Your task to perform on an android device: Open calendar and show me the second week of next month Image 0: 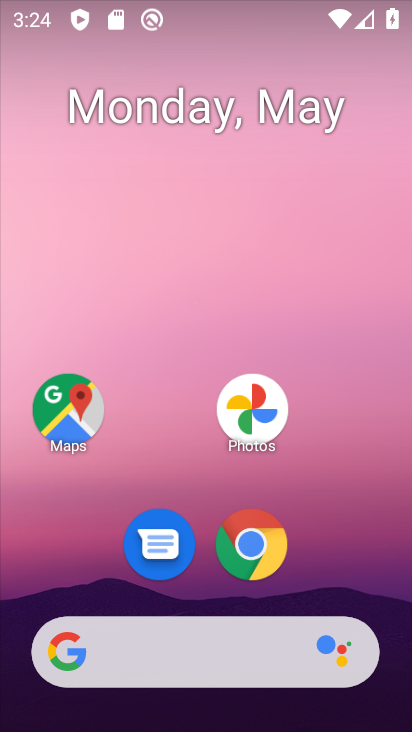
Step 0: drag from (236, 553) to (242, 101)
Your task to perform on an android device: Open calendar and show me the second week of next month Image 1: 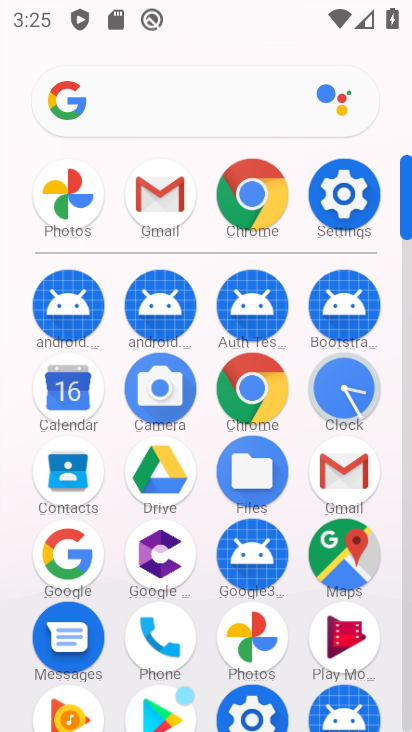
Step 1: click (67, 408)
Your task to perform on an android device: Open calendar and show me the second week of next month Image 2: 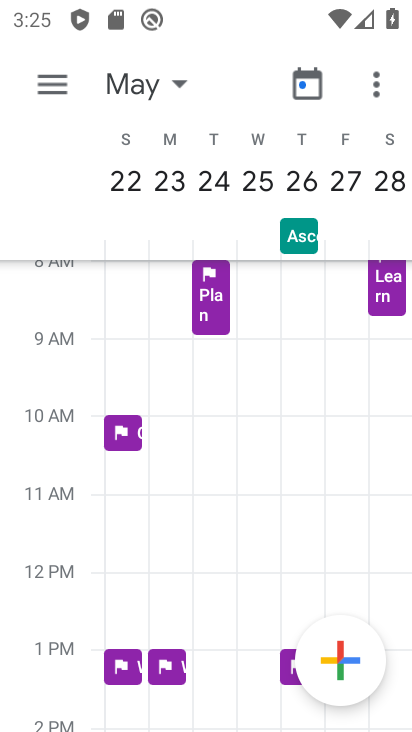
Step 2: click (170, 80)
Your task to perform on an android device: Open calendar and show me the second week of next month Image 3: 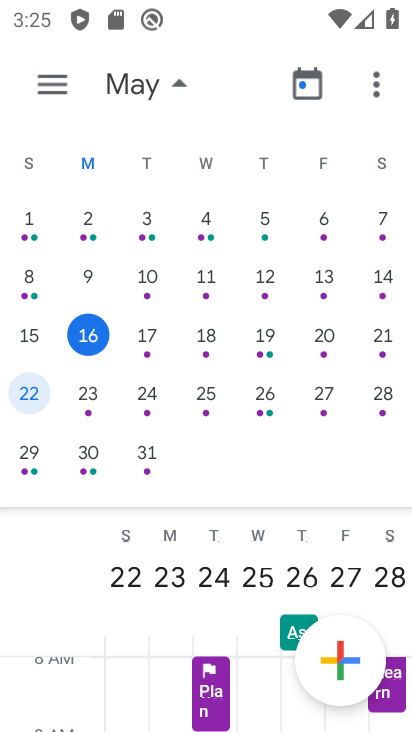
Step 3: drag from (379, 350) to (56, 331)
Your task to perform on an android device: Open calendar and show me the second week of next month Image 4: 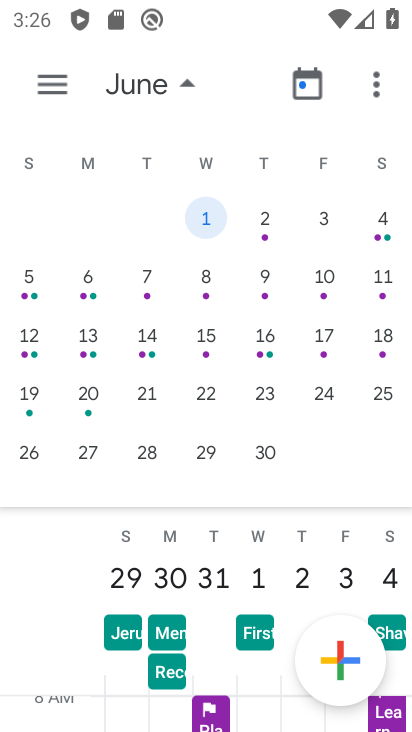
Step 4: drag from (50, 314) to (405, 267)
Your task to perform on an android device: Open calendar and show me the second week of next month Image 5: 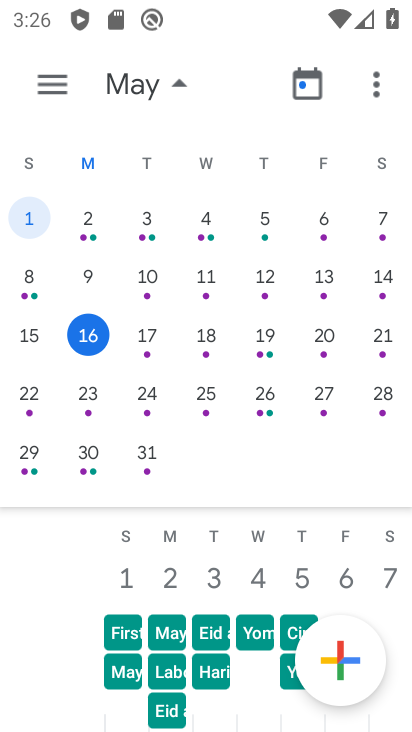
Step 5: drag from (323, 295) to (30, 307)
Your task to perform on an android device: Open calendar and show me the second week of next month Image 6: 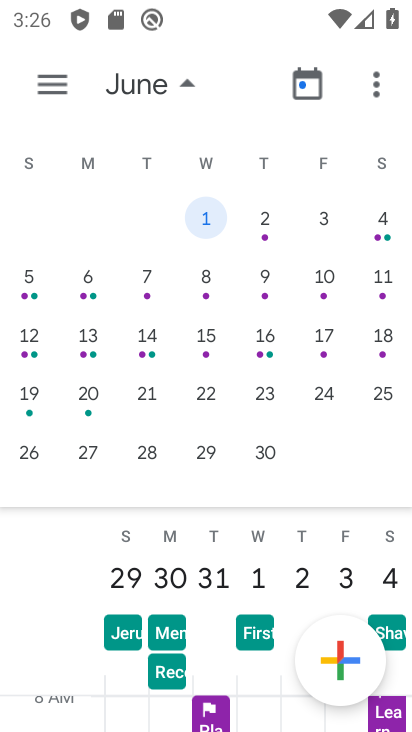
Step 6: click (253, 286)
Your task to perform on an android device: Open calendar and show me the second week of next month Image 7: 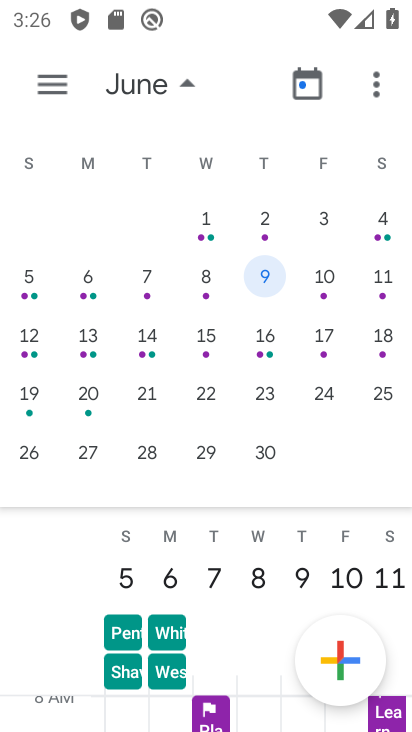
Step 7: task complete